Your task to perform on an android device: Open Google Chrome and open the bookmarks view Image 0: 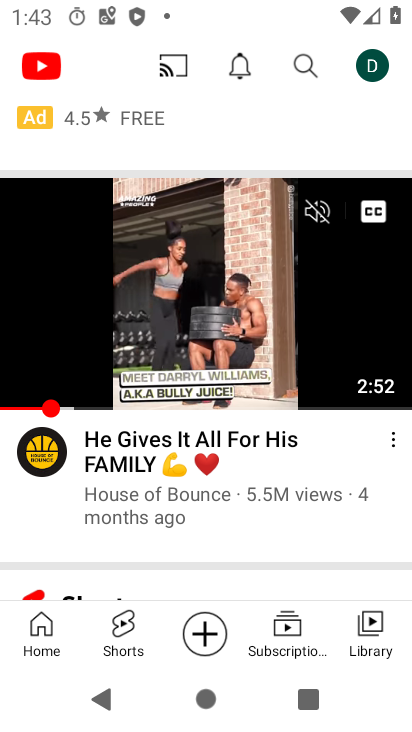
Step 0: press home button
Your task to perform on an android device: Open Google Chrome and open the bookmarks view Image 1: 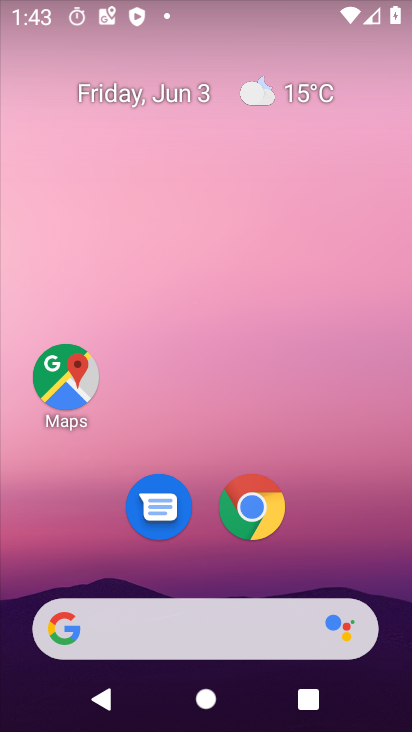
Step 1: drag from (391, 631) to (303, 29)
Your task to perform on an android device: Open Google Chrome and open the bookmarks view Image 2: 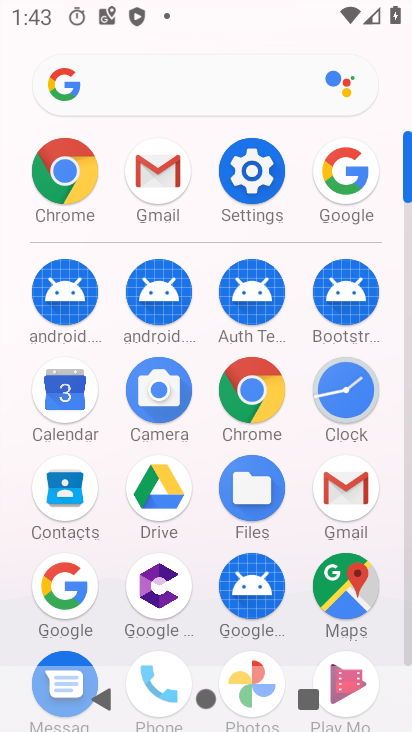
Step 2: click (52, 189)
Your task to perform on an android device: Open Google Chrome and open the bookmarks view Image 3: 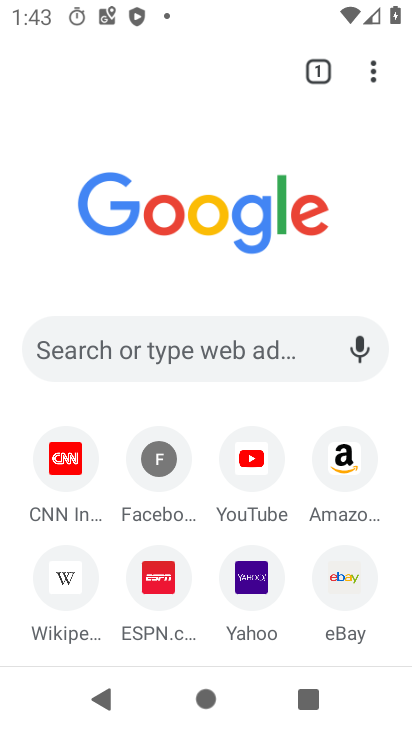
Step 3: click (371, 69)
Your task to perform on an android device: Open Google Chrome and open the bookmarks view Image 4: 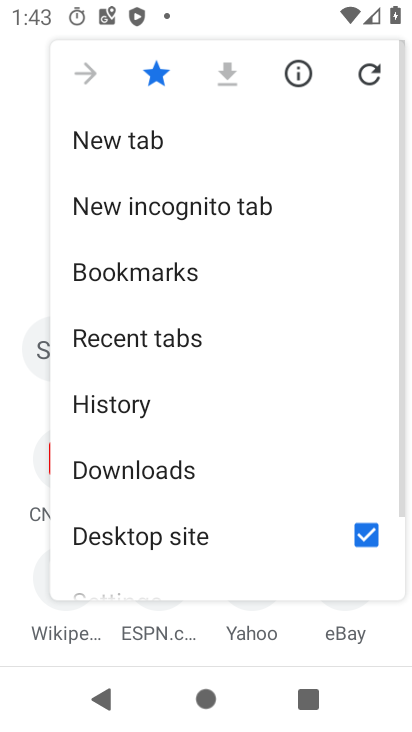
Step 4: click (111, 268)
Your task to perform on an android device: Open Google Chrome and open the bookmarks view Image 5: 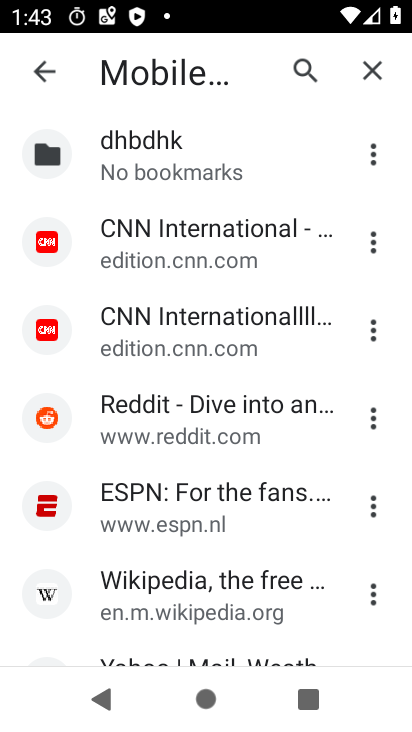
Step 5: task complete